Your task to perform on an android device: open a bookmark in the chrome app Image 0: 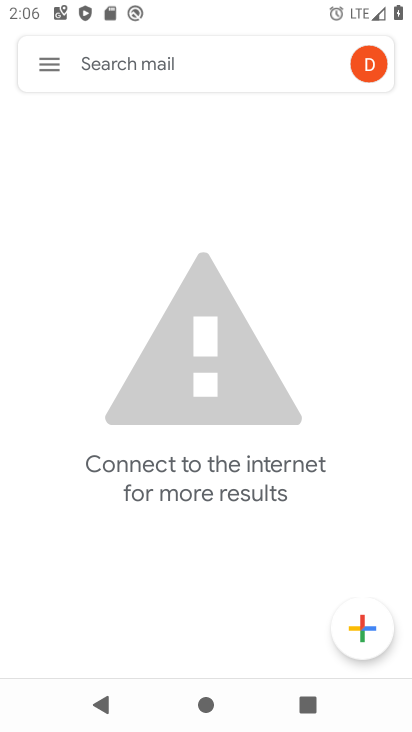
Step 0: press home button
Your task to perform on an android device: open a bookmark in the chrome app Image 1: 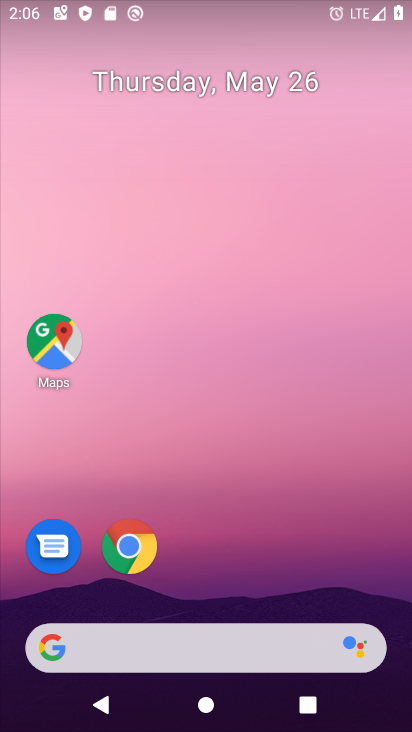
Step 1: click (134, 546)
Your task to perform on an android device: open a bookmark in the chrome app Image 2: 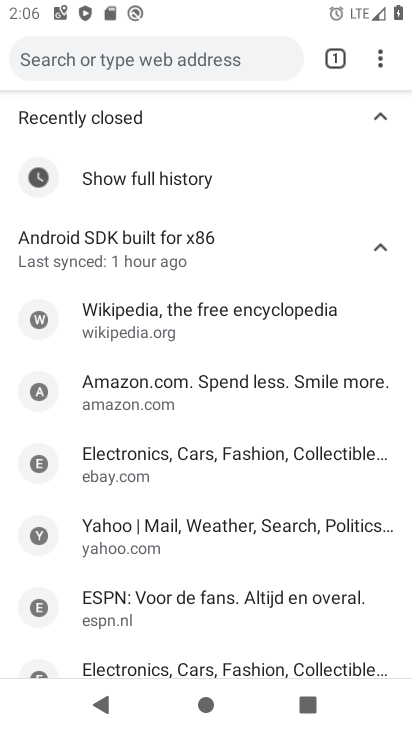
Step 2: click (375, 61)
Your task to perform on an android device: open a bookmark in the chrome app Image 3: 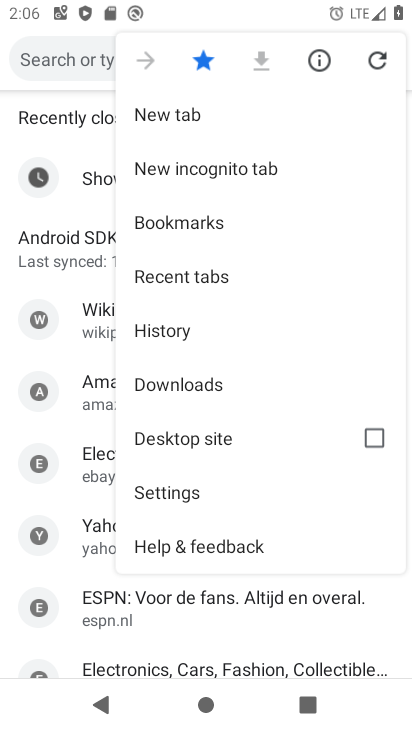
Step 3: click (246, 231)
Your task to perform on an android device: open a bookmark in the chrome app Image 4: 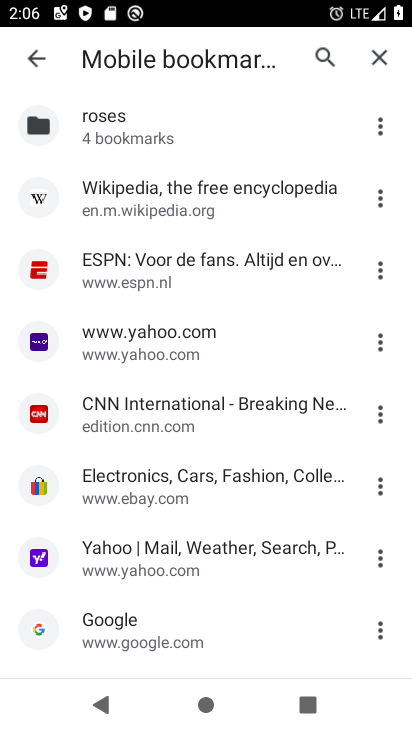
Step 4: click (185, 204)
Your task to perform on an android device: open a bookmark in the chrome app Image 5: 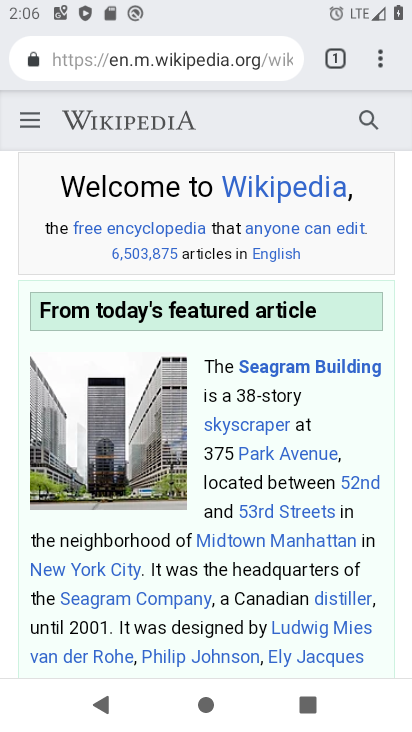
Step 5: task complete